Your task to perform on an android device: Show me the alarms in the clock app Image 0: 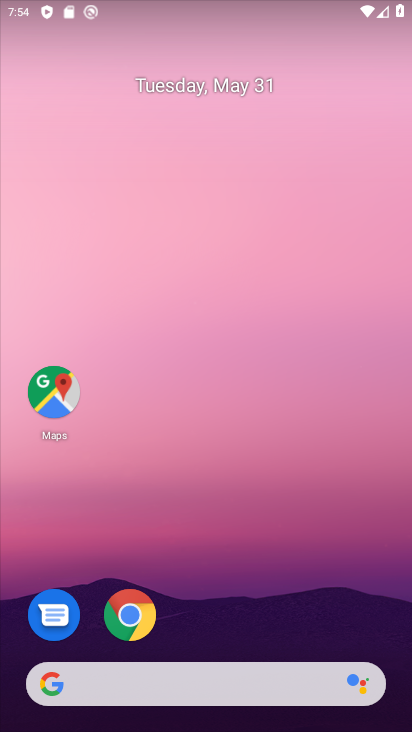
Step 0: press home button
Your task to perform on an android device: Show me the alarms in the clock app Image 1: 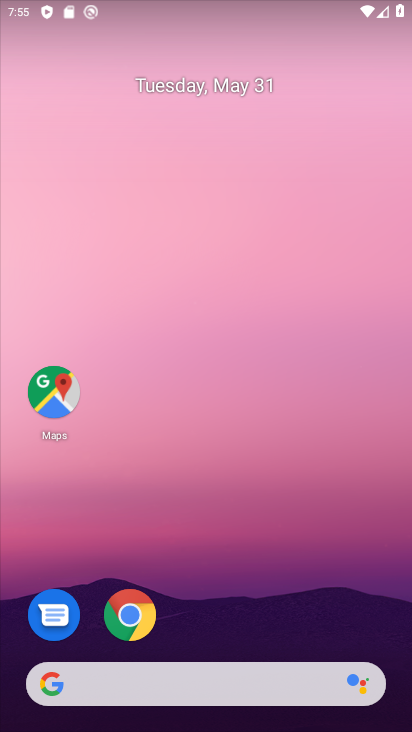
Step 1: drag from (165, 684) to (266, 36)
Your task to perform on an android device: Show me the alarms in the clock app Image 2: 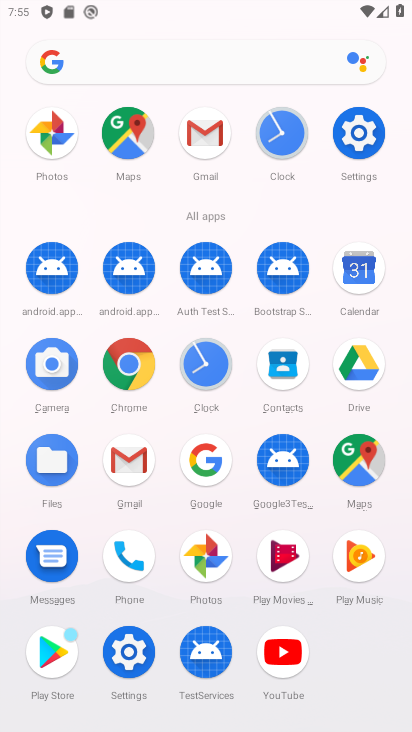
Step 2: click (198, 375)
Your task to perform on an android device: Show me the alarms in the clock app Image 3: 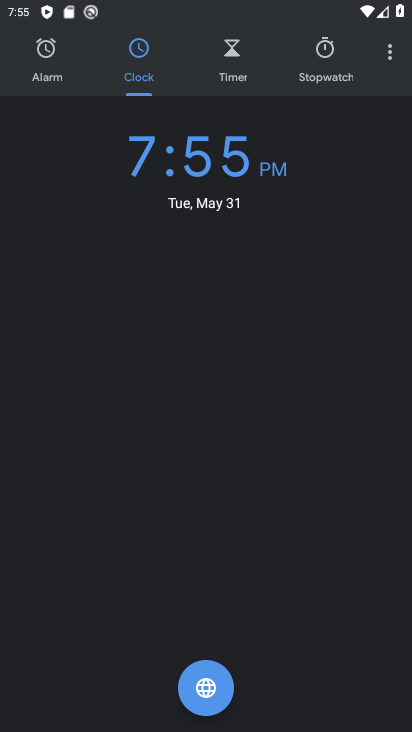
Step 3: click (50, 60)
Your task to perform on an android device: Show me the alarms in the clock app Image 4: 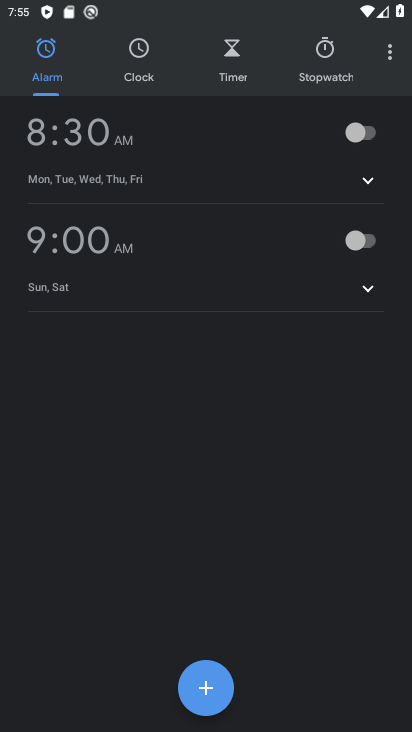
Step 4: task complete